Your task to perform on an android device: choose inbox layout in the gmail app Image 0: 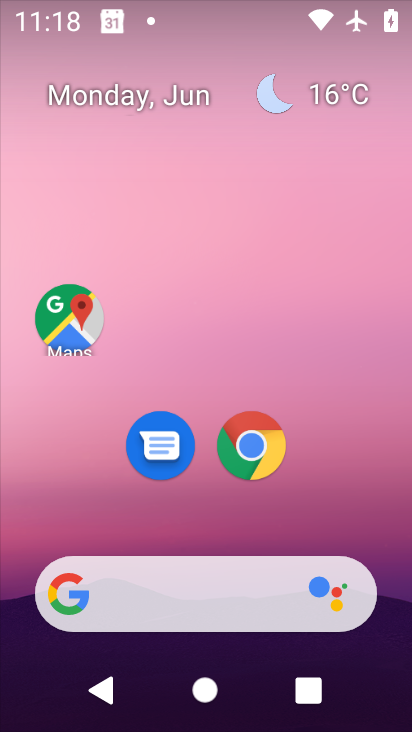
Step 0: drag from (191, 497) to (262, 54)
Your task to perform on an android device: choose inbox layout in the gmail app Image 1: 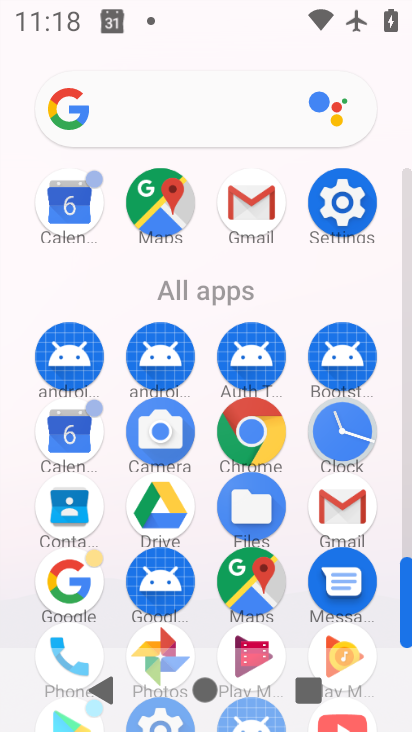
Step 1: click (248, 211)
Your task to perform on an android device: choose inbox layout in the gmail app Image 2: 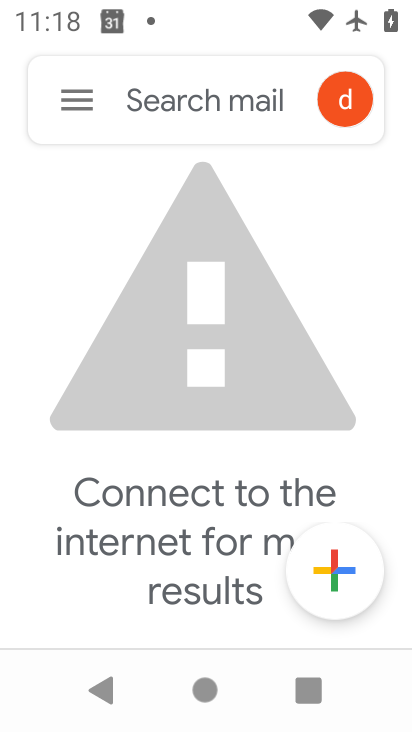
Step 2: click (72, 97)
Your task to perform on an android device: choose inbox layout in the gmail app Image 3: 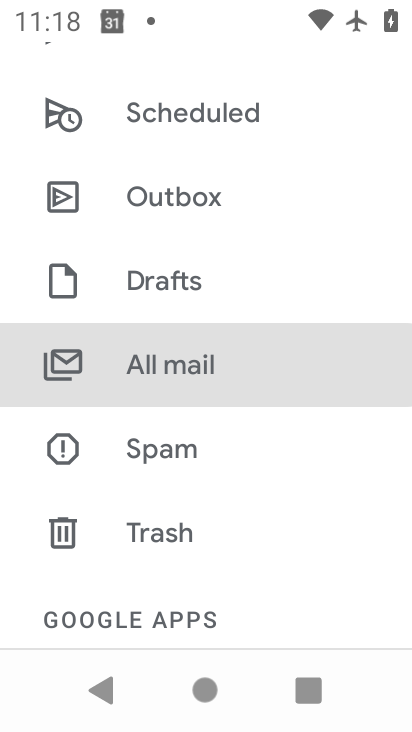
Step 3: drag from (304, 547) to (311, 2)
Your task to perform on an android device: choose inbox layout in the gmail app Image 4: 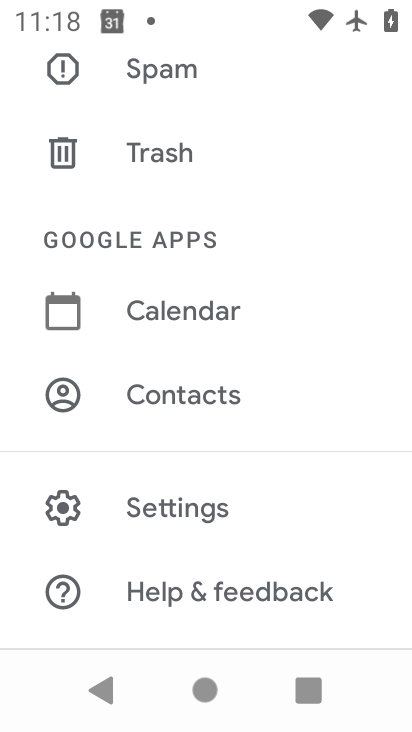
Step 4: click (171, 510)
Your task to perform on an android device: choose inbox layout in the gmail app Image 5: 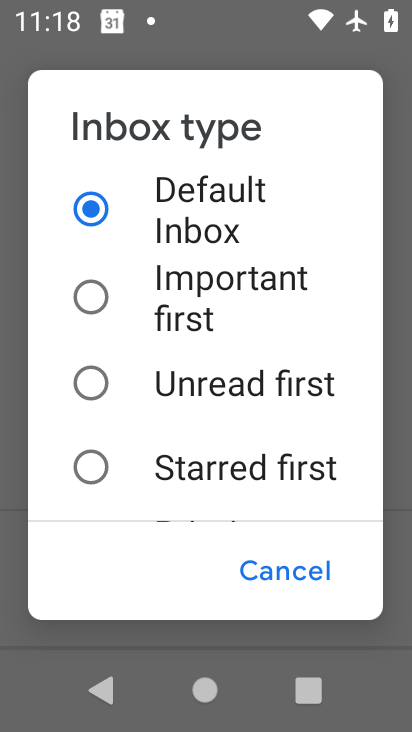
Step 5: drag from (157, 442) to (157, 101)
Your task to perform on an android device: choose inbox layout in the gmail app Image 6: 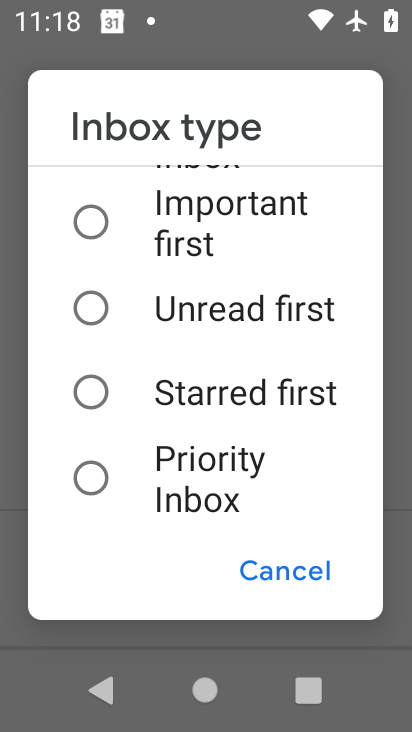
Step 6: click (98, 395)
Your task to perform on an android device: choose inbox layout in the gmail app Image 7: 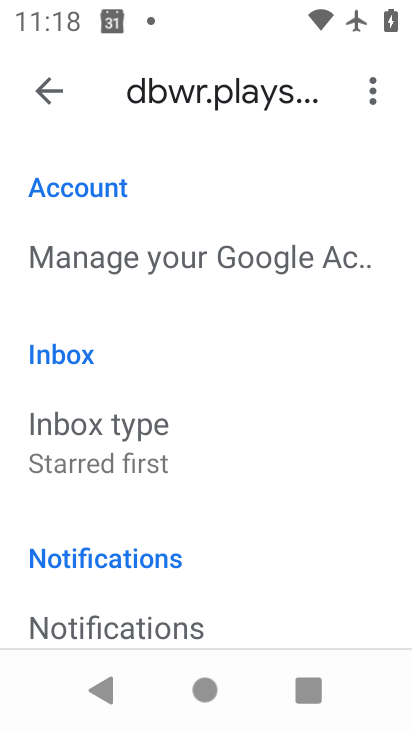
Step 7: task complete